Your task to perform on an android device: empty trash in the gmail app Image 0: 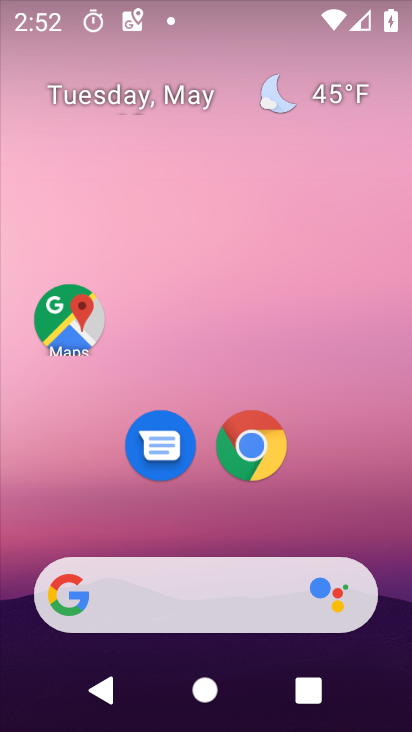
Step 0: drag from (191, 517) to (312, 30)
Your task to perform on an android device: empty trash in the gmail app Image 1: 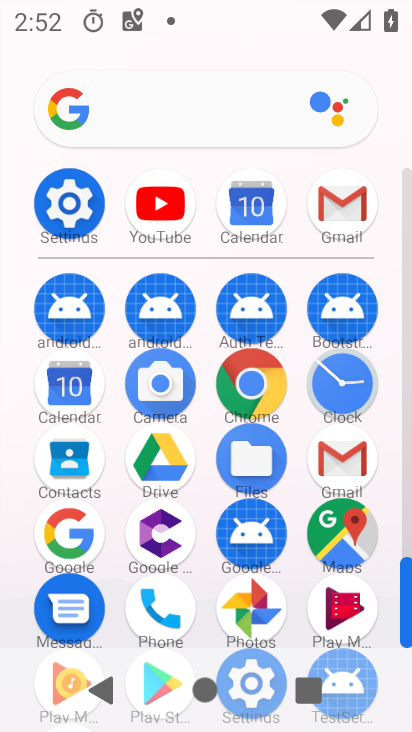
Step 1: click (342, 207)
Your task to perform on an android device: empty trash in the gmail app Image 2: 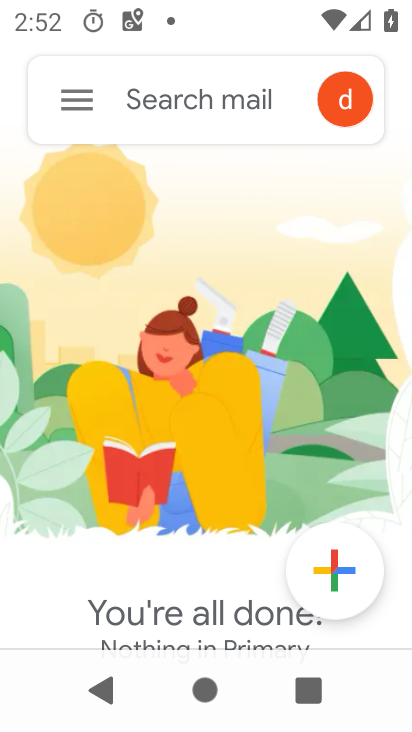
Step 2: click (79, 103)
Your task to perform on an android device: empty trash in the gmail app Image 3: 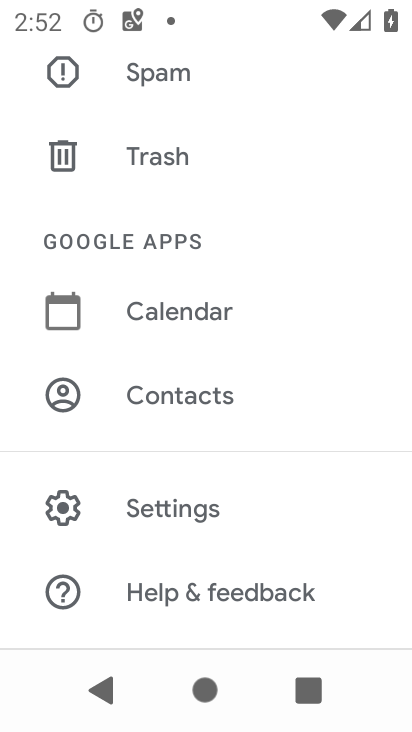
Step 3: drag from (234, 180) to (235, 449)
Your task to perform on an android device: empty trash in the gmail app Image 4: 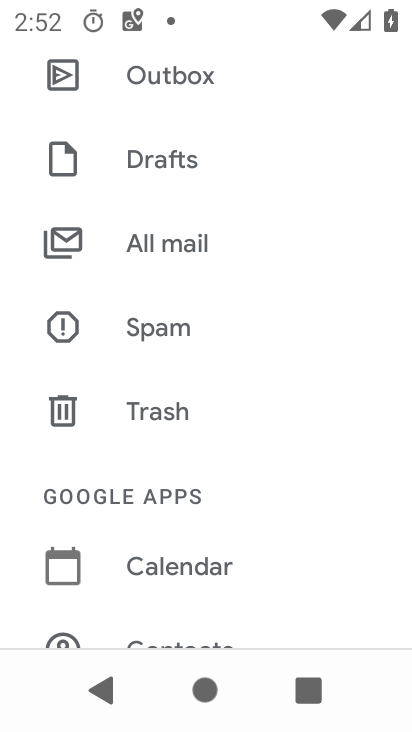
Step 4: click (150, 414)
Your task to perform on an android device: empty trash in the gmail app Image 5: 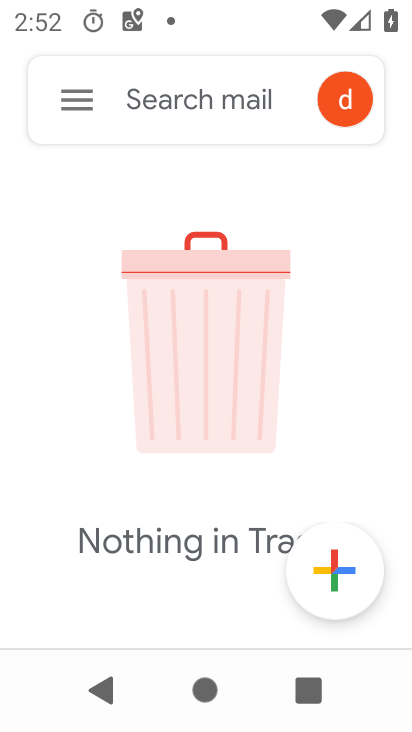
Step 5: task complete